Your task to perform on an android device: Open Google Maps and go to "Timeline" Image 0: 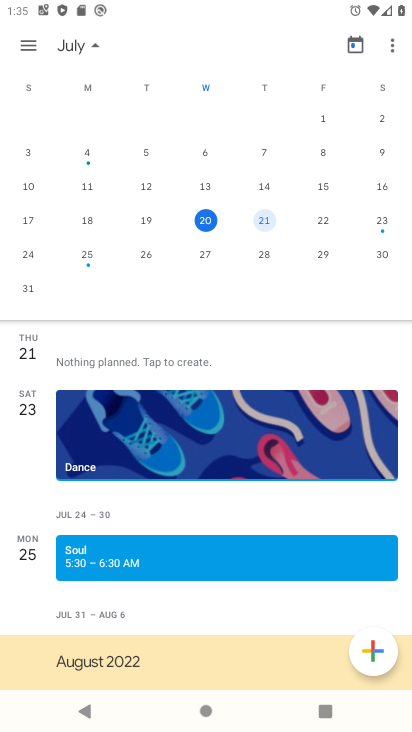
Step 0: press home button
Your task to perform on an android device: Open Google Maps and go to "Timeline" Image 1: 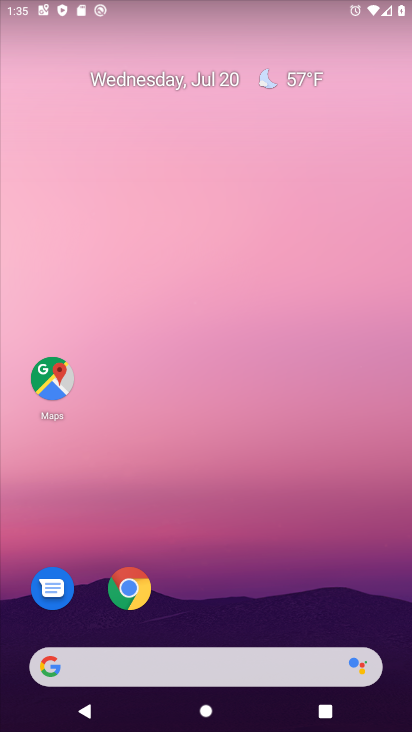
Step 1: click (49, 370)
Your task to perform on an android device: Open Google Maps and go to "Timeline" Image 2: 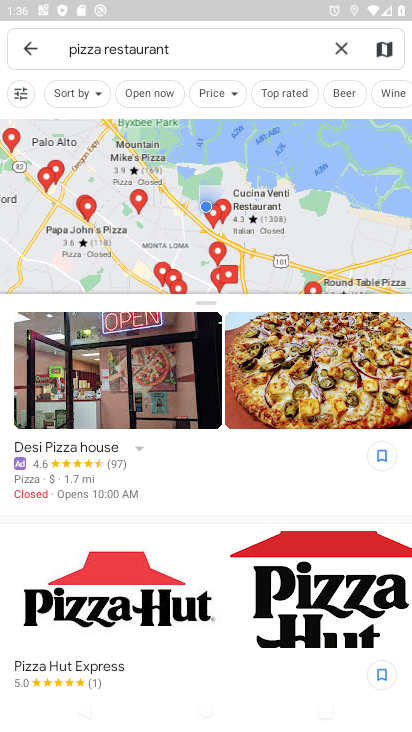
Step 2: click (334, 46)
Your task to perform on an android device: Open Google Maps and go to "Timeline" Image 3: 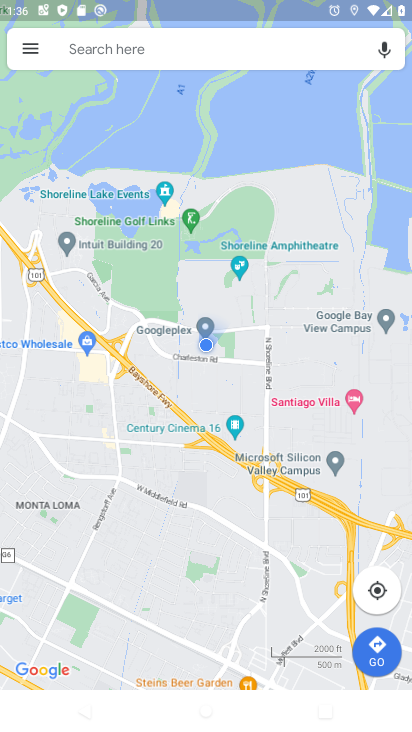
Step 3: click (27, 44)
Your task to perform on an android device: Open Google Maps and go to "Timeline" Image 4: 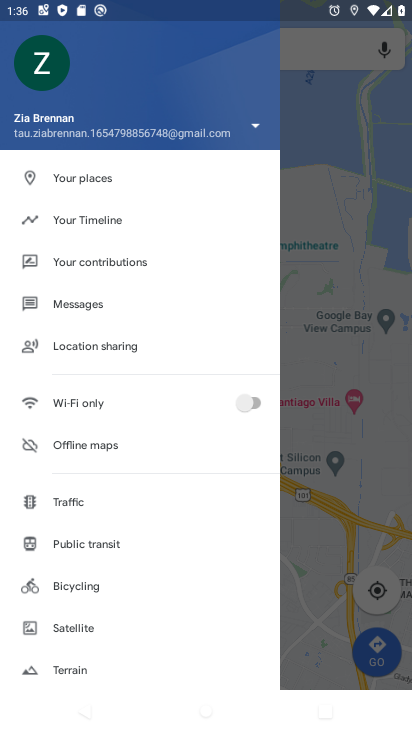
Step 4: click (95, 229)
Your task to perform on an android device: Open Google Maps and go to "Timeline" Image 5: 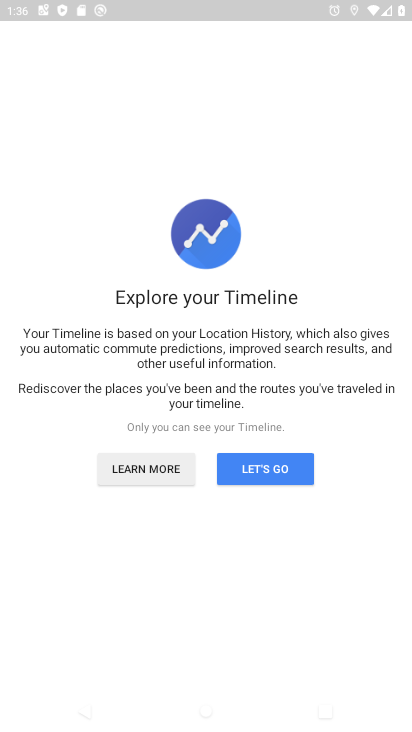
Step 5: click (272, 476)
Your task to perform on an android device: Open Google Maps and go to "Timeline" Image 6: 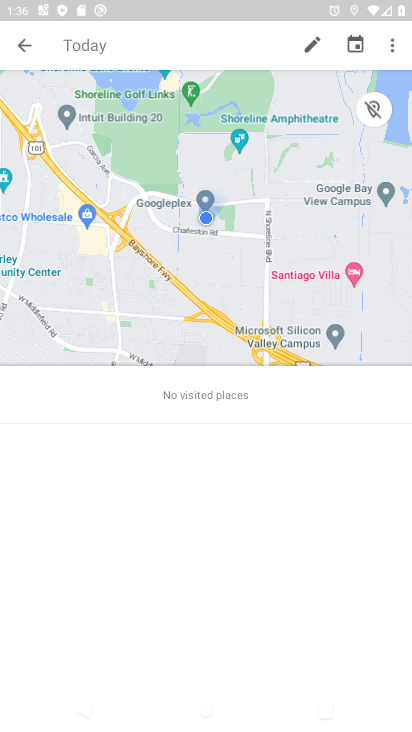
Step 6: task complete